Your task to perform on an android device: open device folders in google photos Image 0: 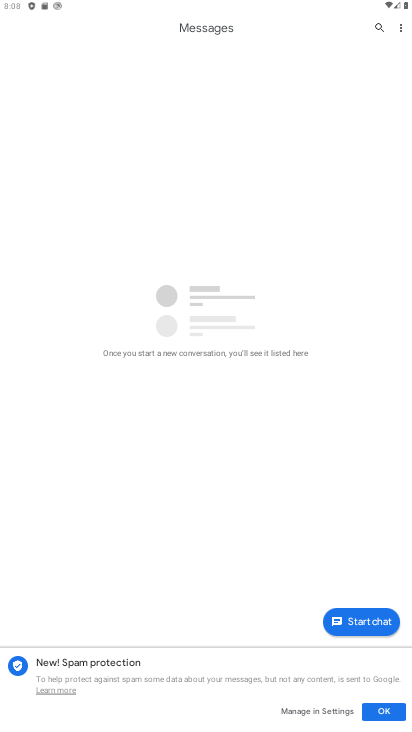
Step 0: press home button
Your task to perform on an android device: open device folders in google photos Image 1: 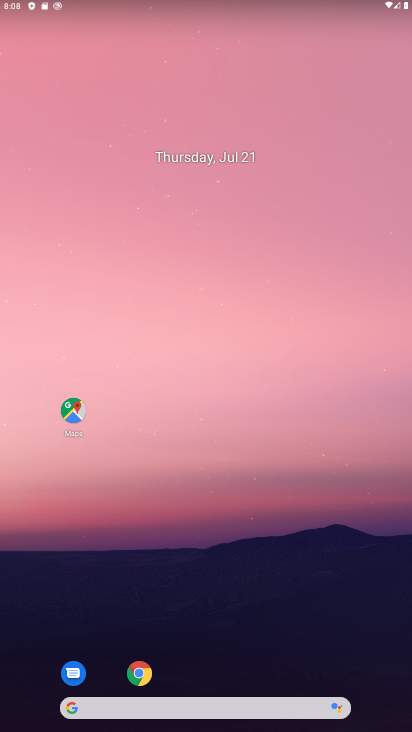
Step 1: drag from (198, 655) to (151, 88)
Your task to perform on an android device: open device folders in google photos Image 2: 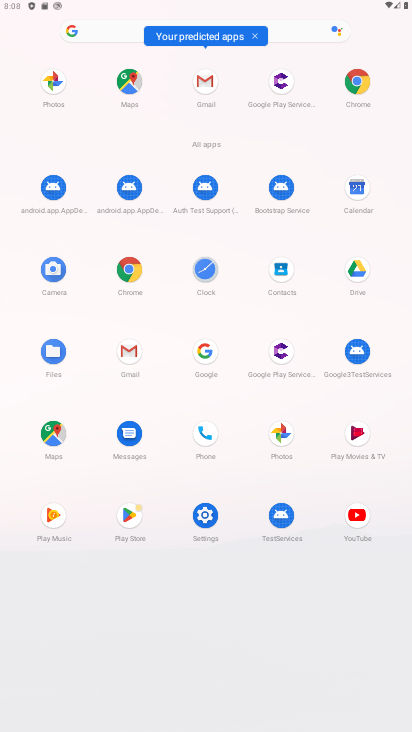
Step 2: click (285, 424)
Your task to perform on an android device: open device folders in google photos Image 3: 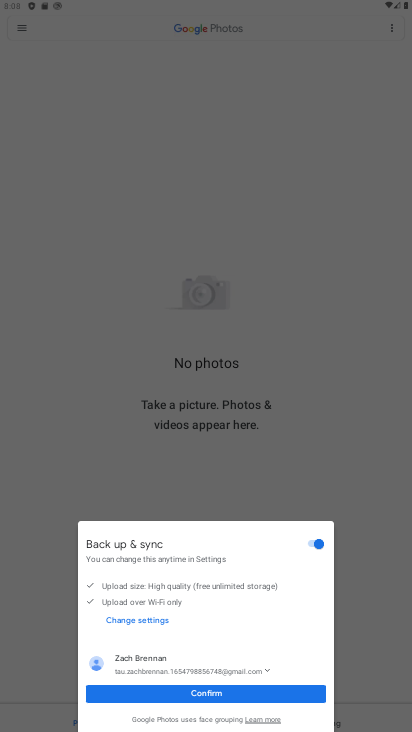
Step 3: click (215, 688)
Your task to perform on an android device: open device folders in google photos Image 4: 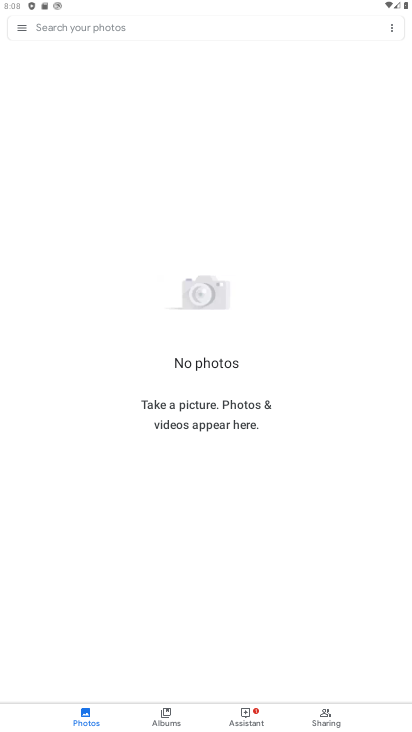
Step 4: click (20, 30)
Your task to perform on an android device: open device folders in google photos Image 5: 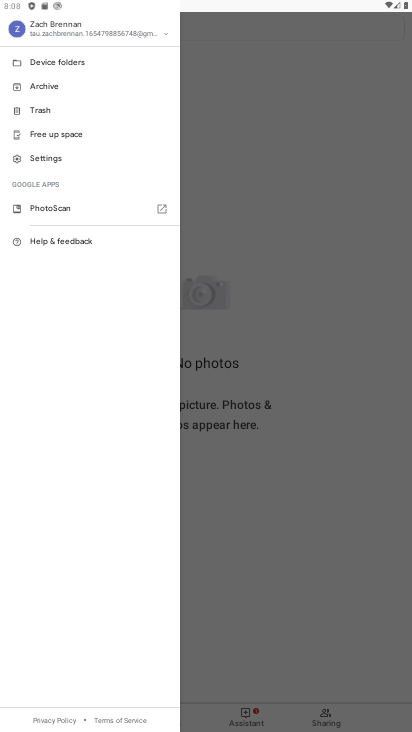
Step 5: click (74, 69)
Your task to perform on an android device: open device folders in google photos Image 6: 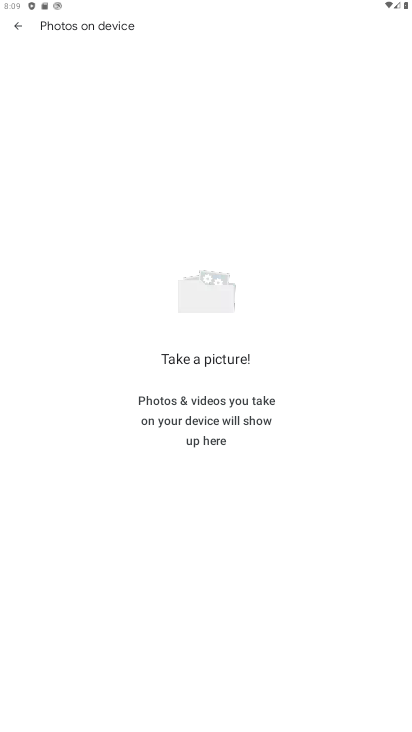
Step 6: task complete